Your task to perform on an android device: open the mobile data screen to see how much data has been used Image 0: 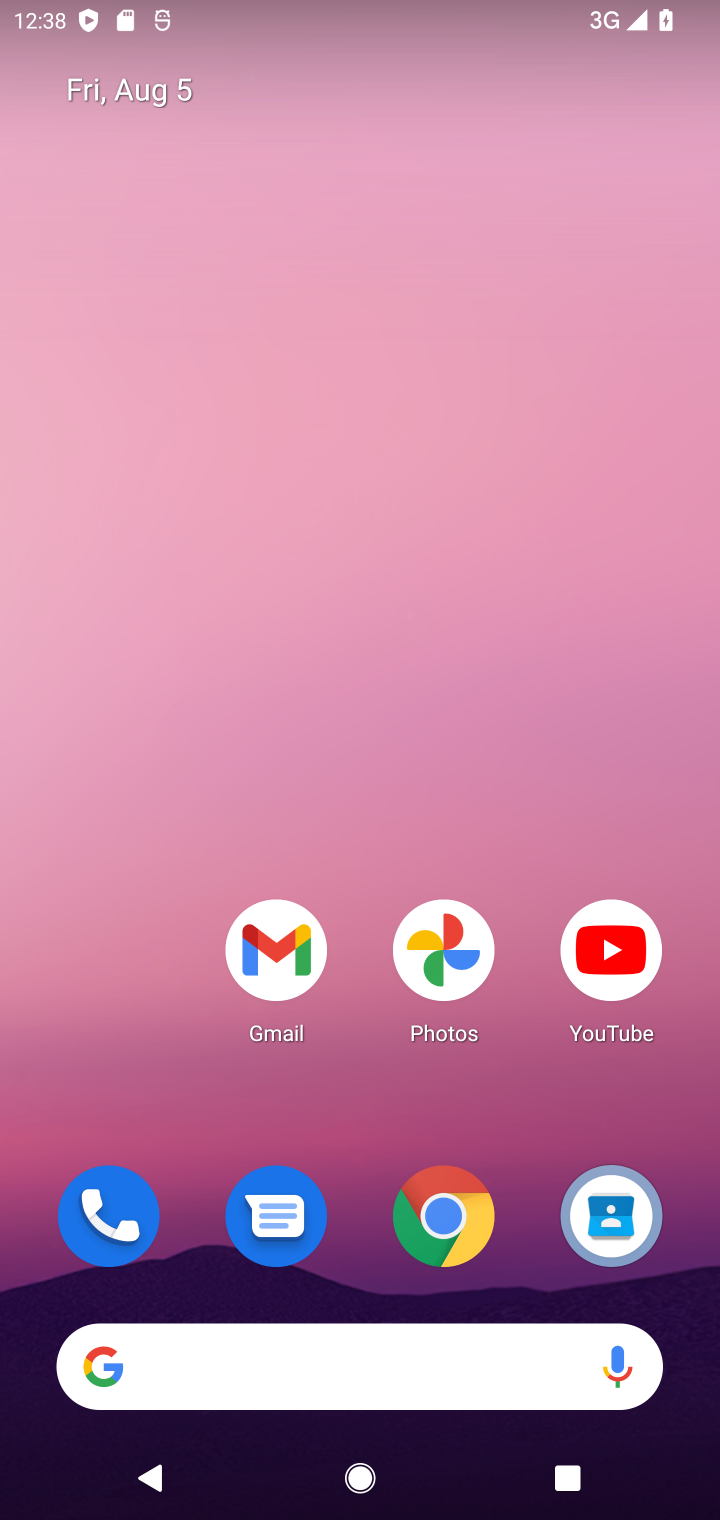
Step 0: drag from (430, 1342) to (404, 91)
Your task to perform on an android device: open the mobile data screen to see how much data has been used Image 1: 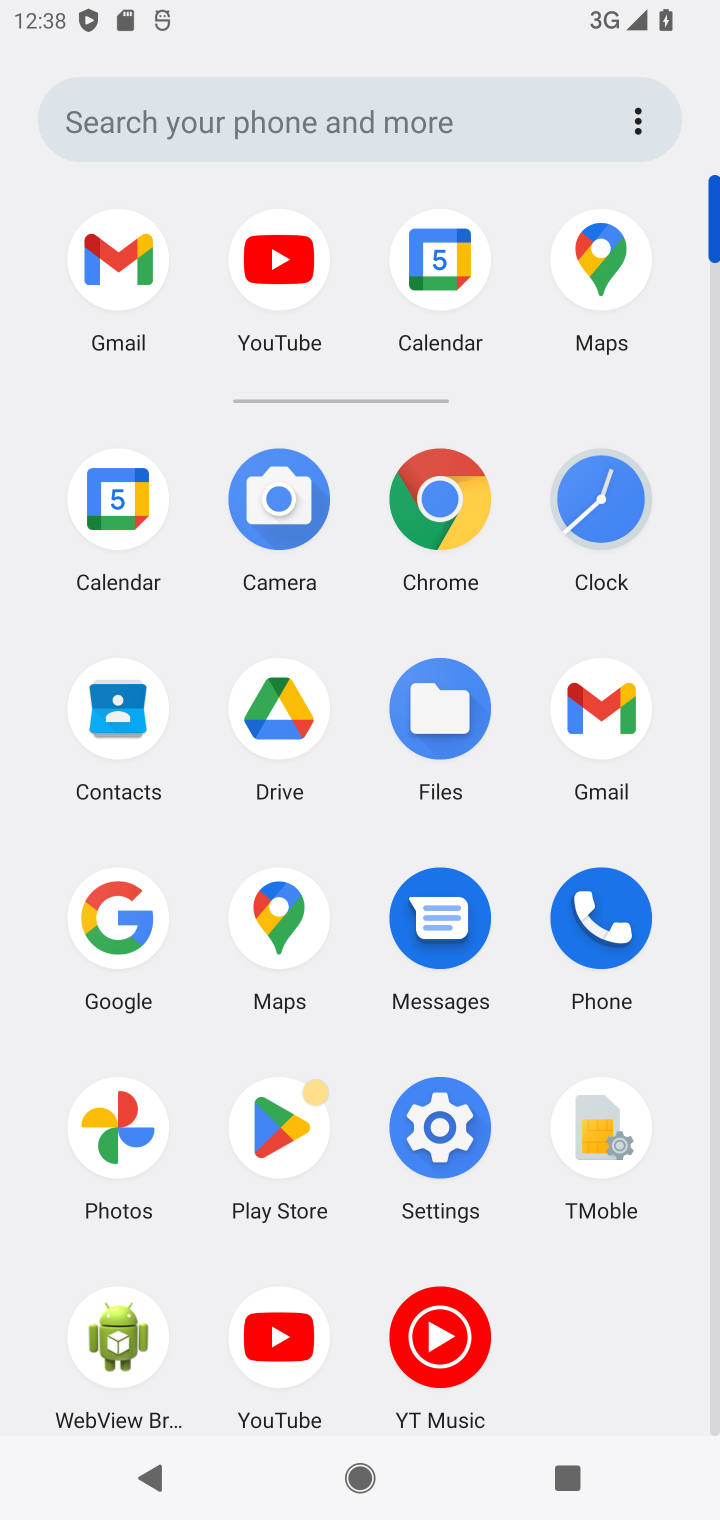
Step 1: click (427, 1140)
Your task to perform on an android device: open the mobile data screen to see how much data has been used Image 2: 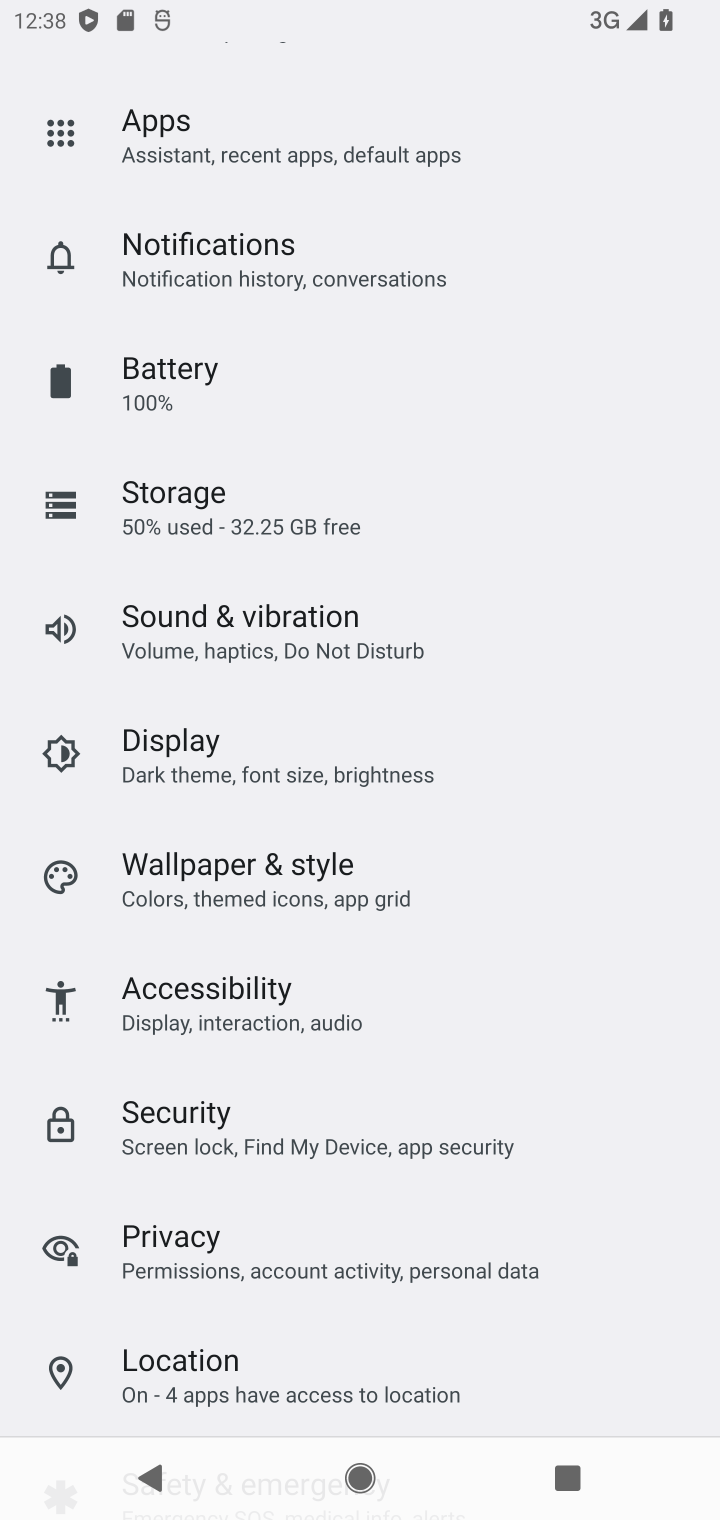
Step 2: drag from (427, 418) to (427, 1303)
Your task to perform on an android device: open the mobile data screen to see how much data has been used Image 3: 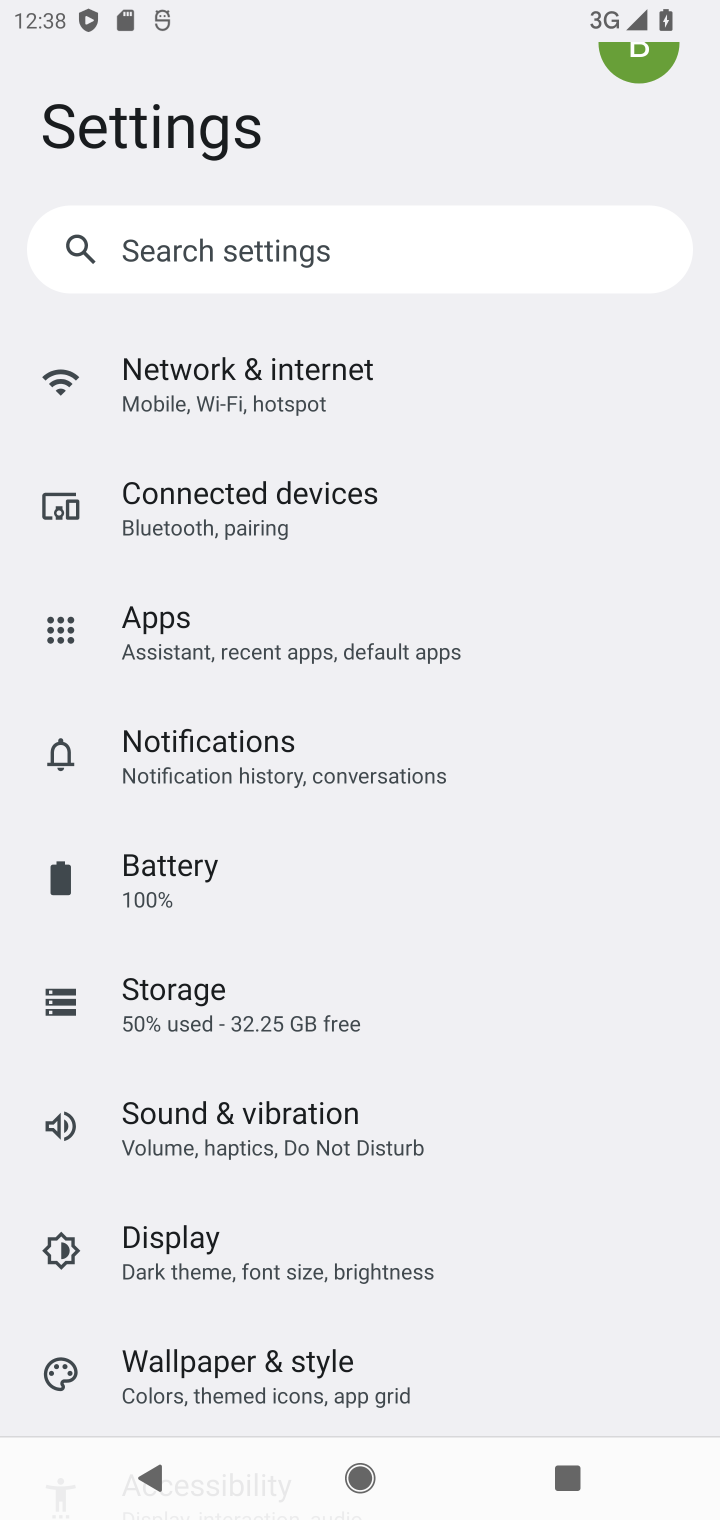
Step 3: click (250, 401)
Your task to perform on an android device: open the mobile data screen to see how much data has been used Image 4: 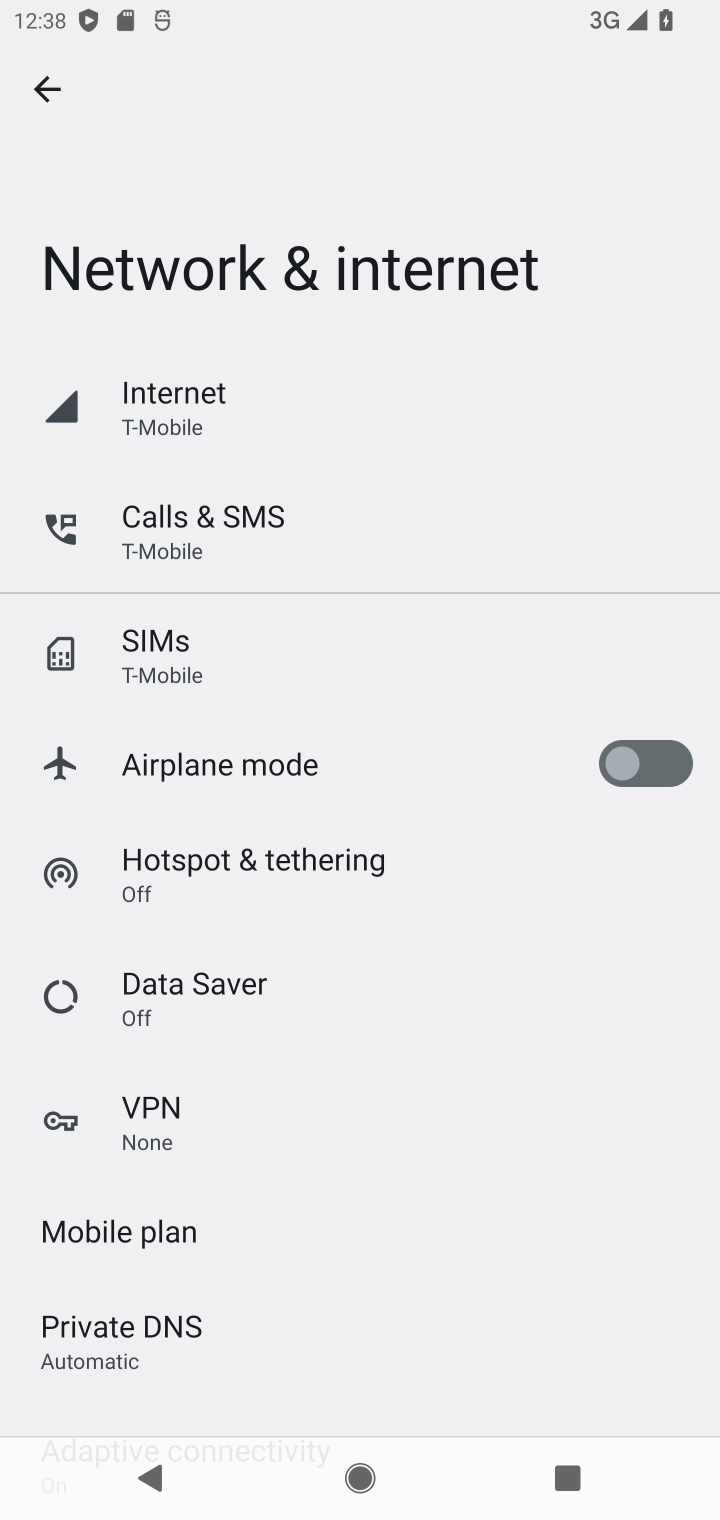
Step 4: click (226, 441)
Your task to perform on an android device: open the mobile data screen to see how much data has been used Image 5: 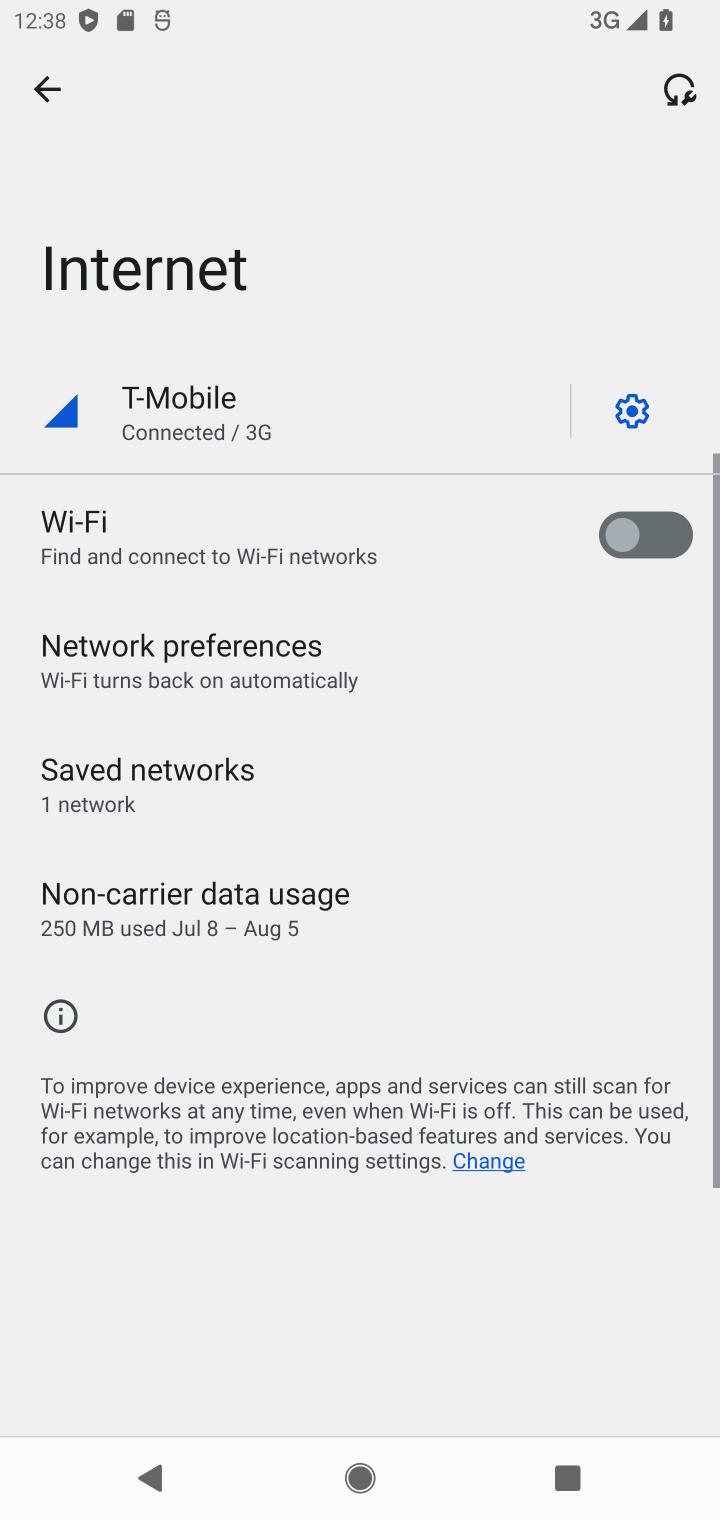
Step 5: task complete